Your task to perform on an android device: toggle javascript in the chrome app Image 0: 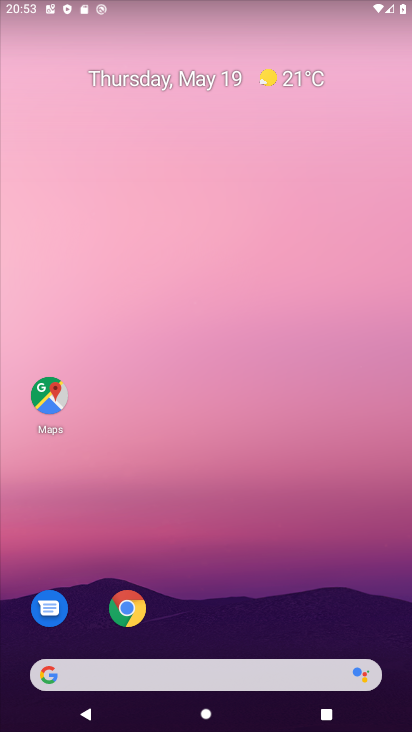
Step 0: click (129, 612)
Your task to perform on an android device: toggle javascript in the chrome app Image 1: 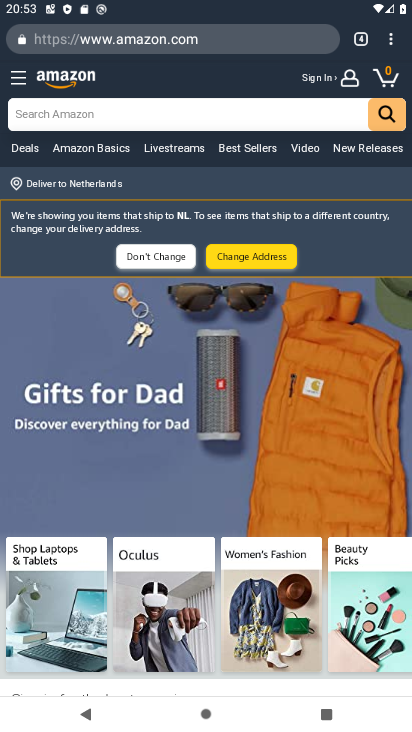
Step 1: click (394, 37)
Your task to perform on an android device: toggle javascript in the chrome app Image 2: 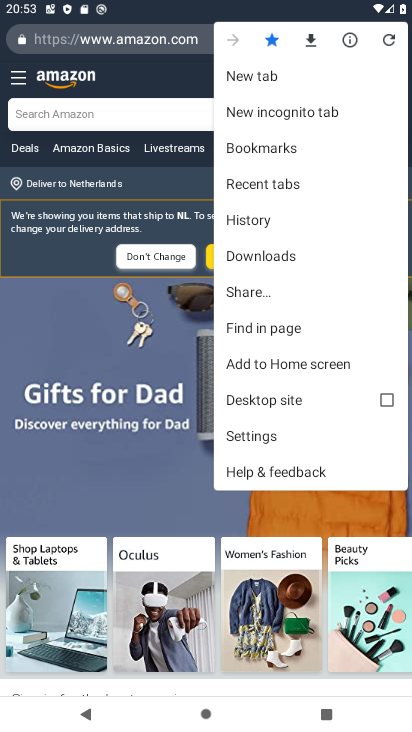
Step 2: click (254, 431)
Your task to perform on an android device: toggle javascript in the chrome app Image 3: 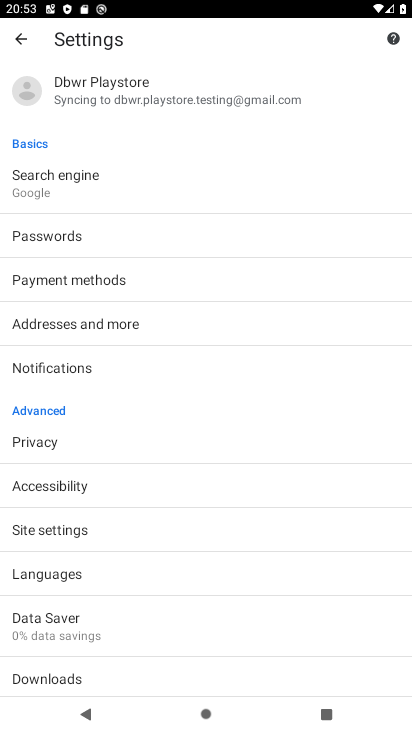
Step 3: drag from (218, 530) to (200, 245)
Your task to perform on an android device: toggle javascript in the chrome app Image 4: 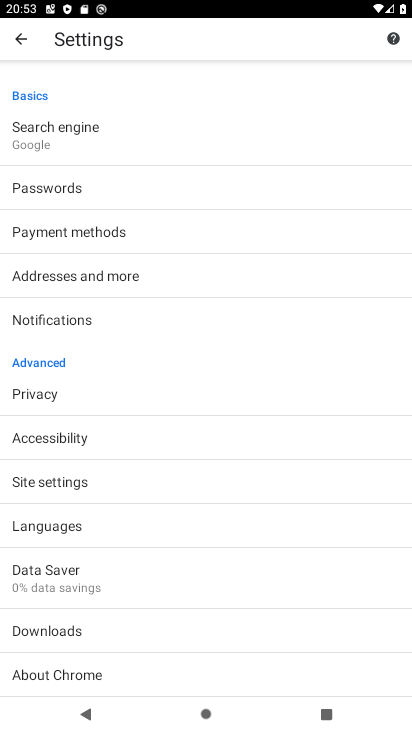
Step 4: click (52, 481)
Your task to perform on an android device: toggle javascript in the chrome app Image 5: 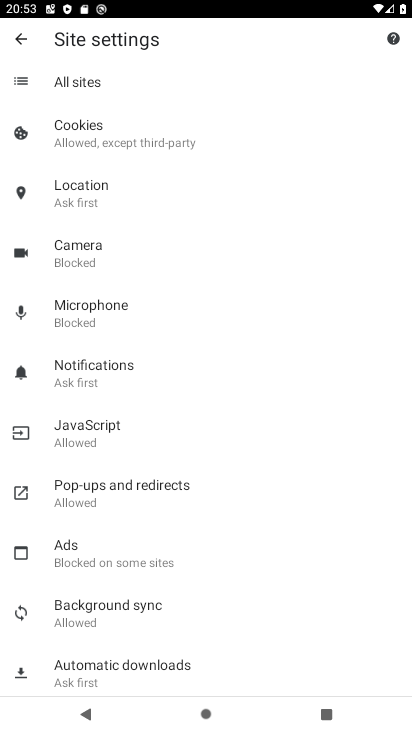
Step 5: click (96, 426)
Your task to perform on an android device: toggle javascript in the chrome app Image 6: 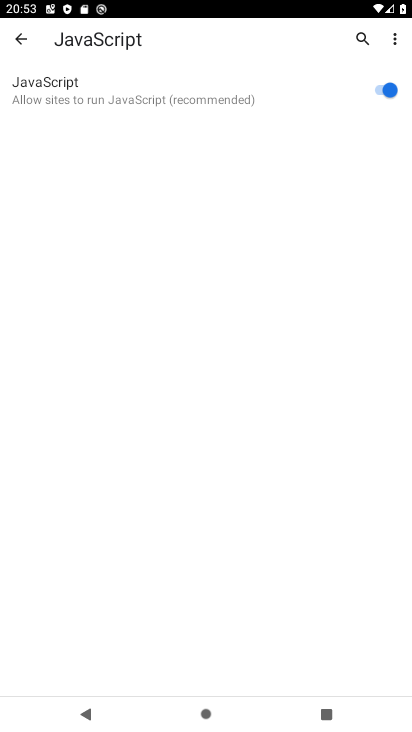
Step 6: click (383, 87)
Your task to perform on an android device: toggle javascript in the chrome app Image 7: 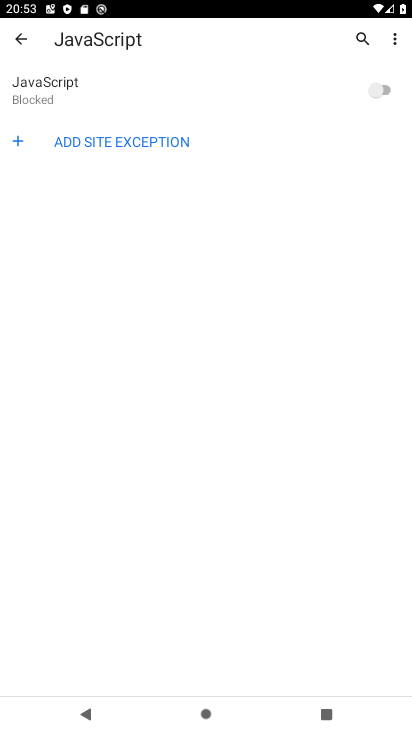
Step 7: task complete